Your task to perform on an android device: install app "Mercado Libre" Image 0: 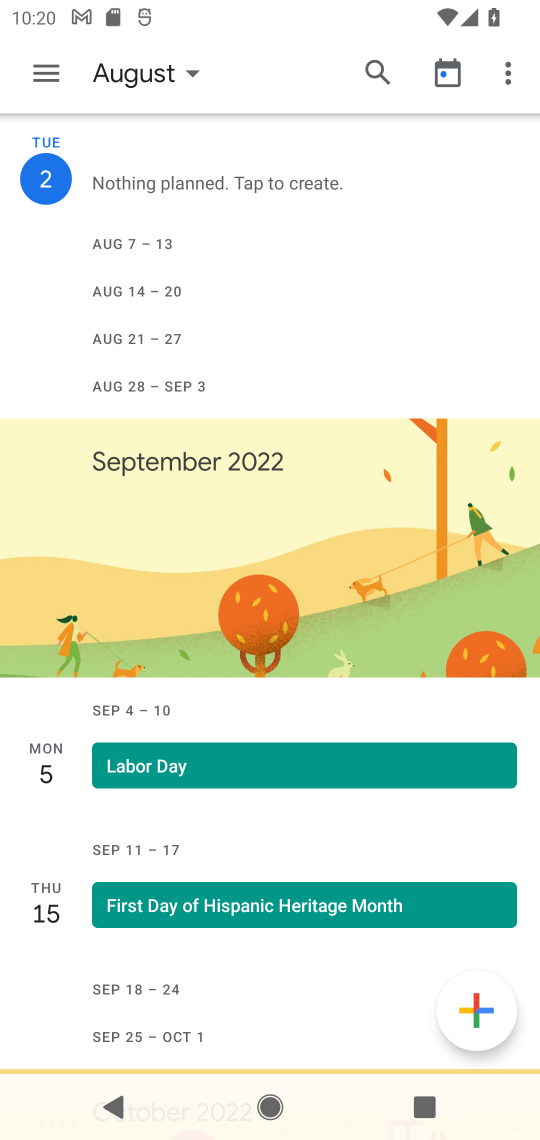
Step 0: press home button
Your task to perform on an android device: install app "Mercado Libre" Image 1: 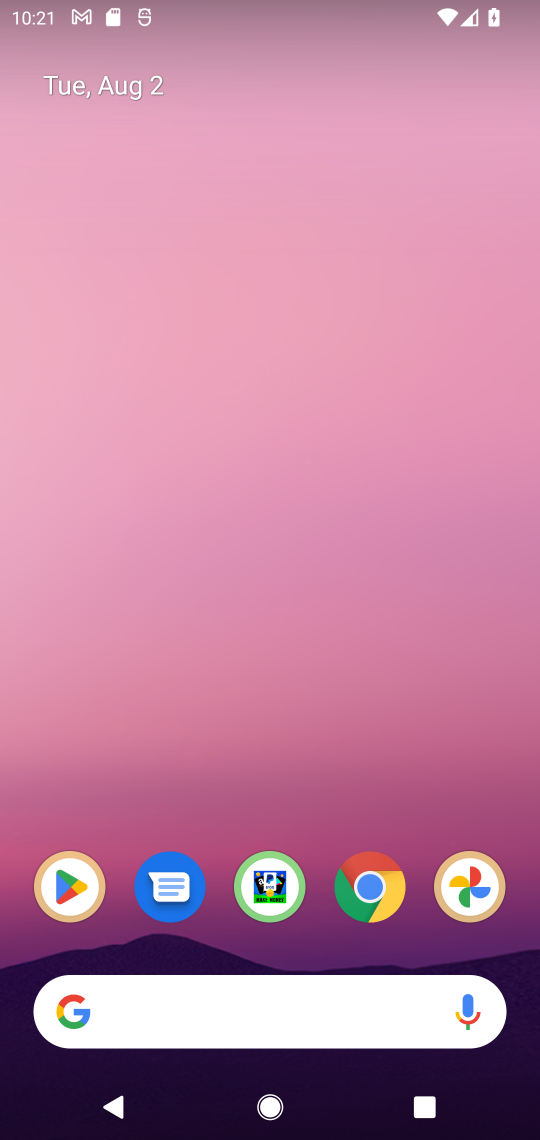
Step 1: click (64, 903)
Your task to perform on an android device: install app "Mercado Libre" Image 2: 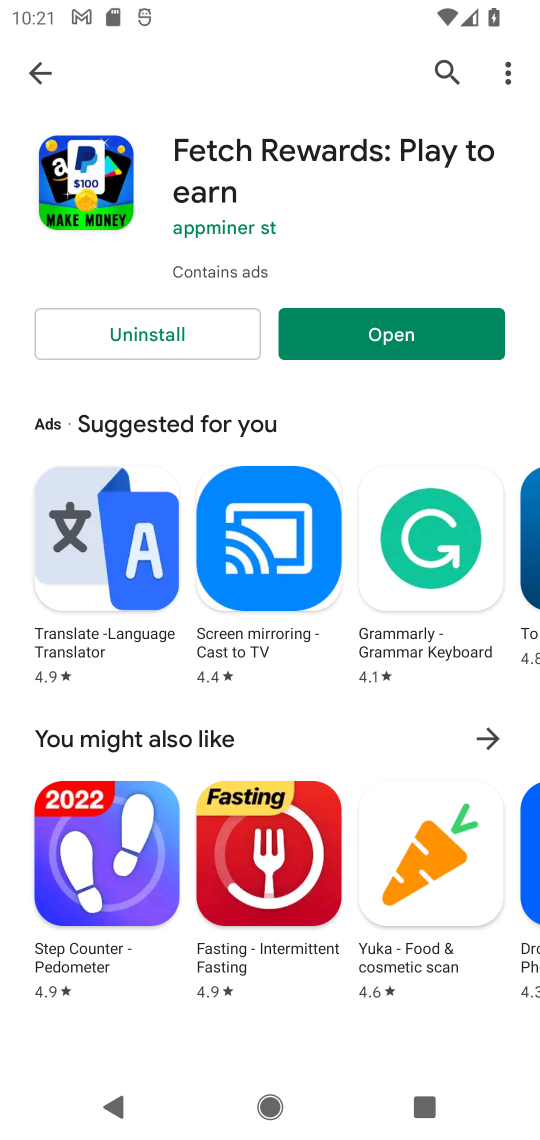
Step 2: click (20, 54)
Your task to perform on an android device: install app "Mercado Libre" Image 3: 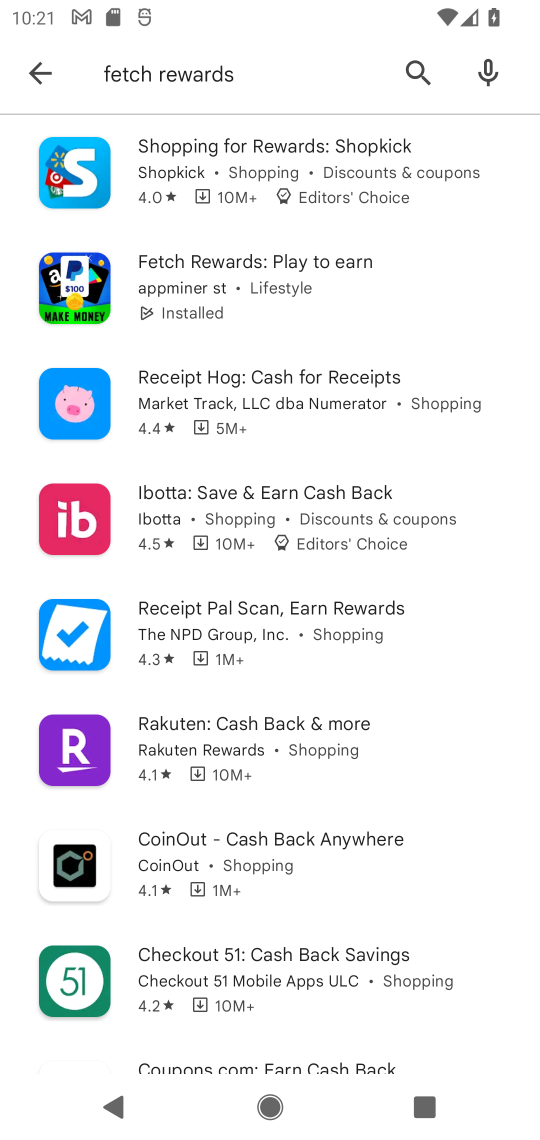
Step 3: click (26, 60)
Your task to perform on an android device: install app "Mercado Libre" Image 4: 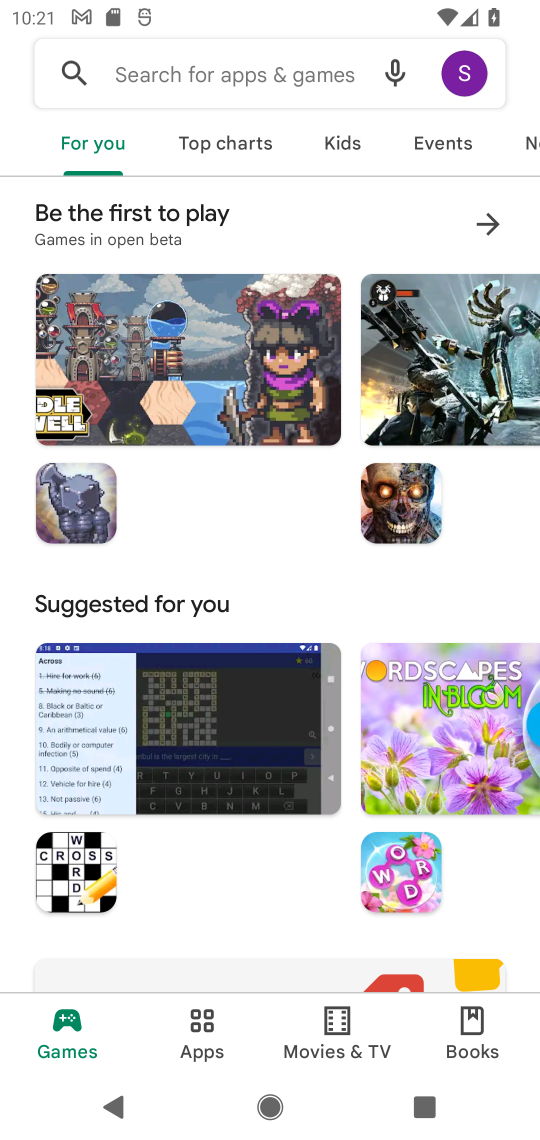
Step 4: click (183, 62)
Your task to perform on an android device: install app "Mercado Libre" Image 5: 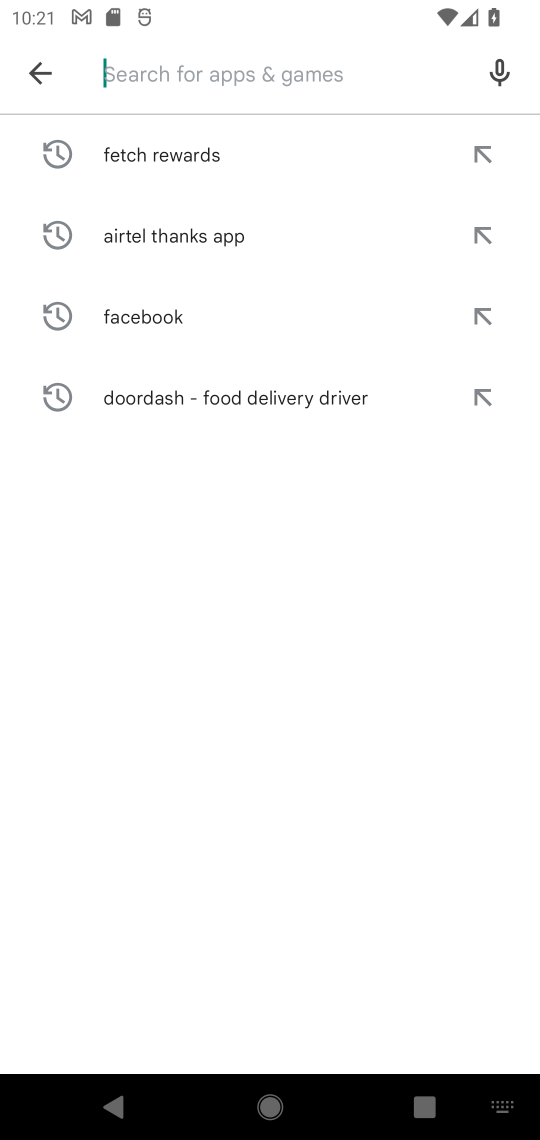
Step 5: type "Mercado Libre"
Your task to perform on an android device: install app "Mercado Libre" Image 6: 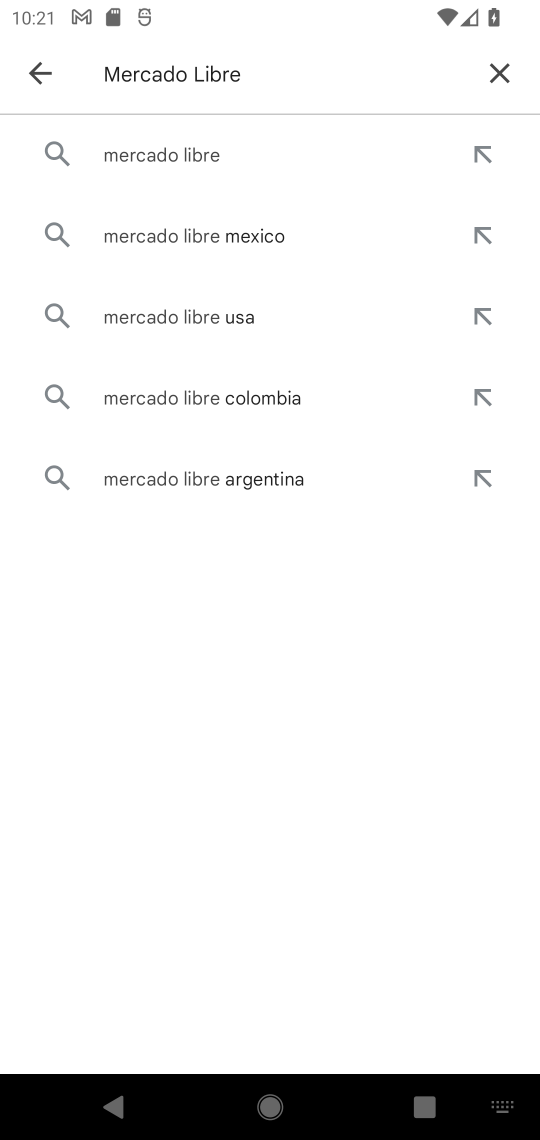
Step 6: click (122, 145)
Your task to perform on an android device: install app "Mercado Libre" Image 7: 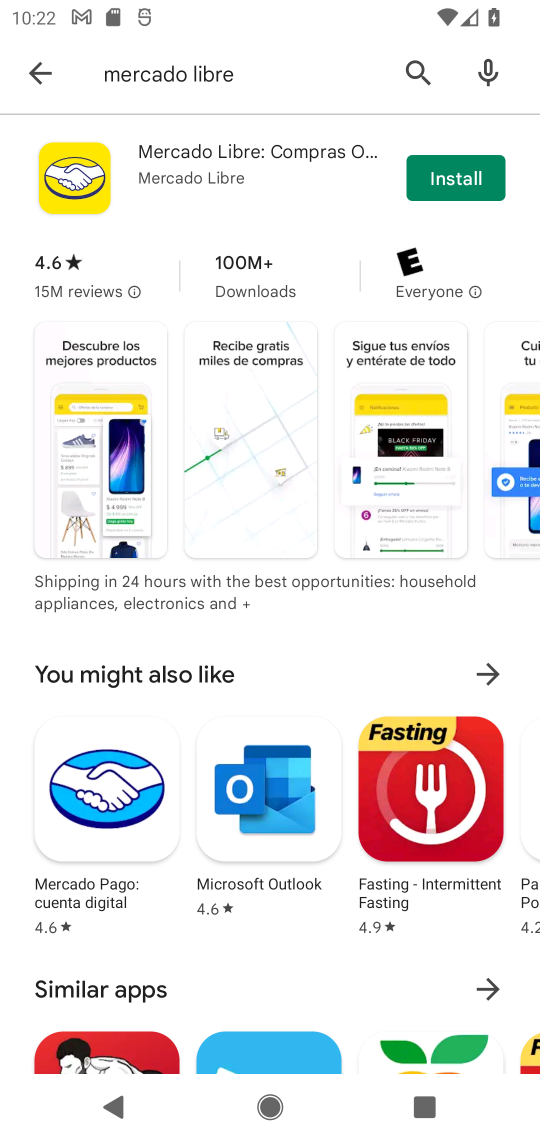
Step 7: click (479, 179)
Your task to perform on an android device: install app "Mercado Libre" Image 8: 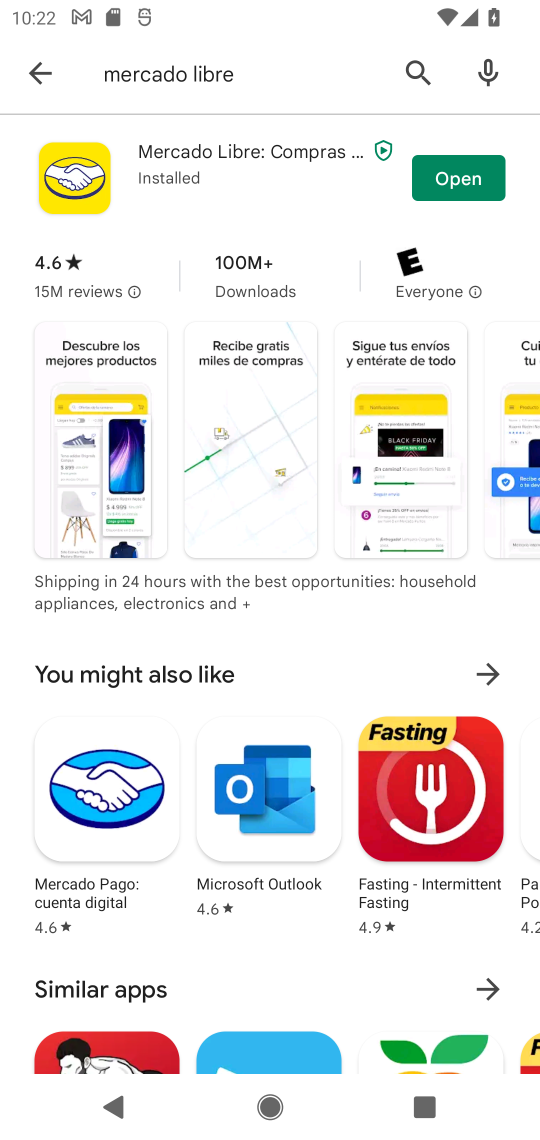
Step 8: task complete